Your task to perform on an android device: open app "HBO Max: Stream TV & Movies" (install if not already installed), go to login, and select forgot password Image 0: 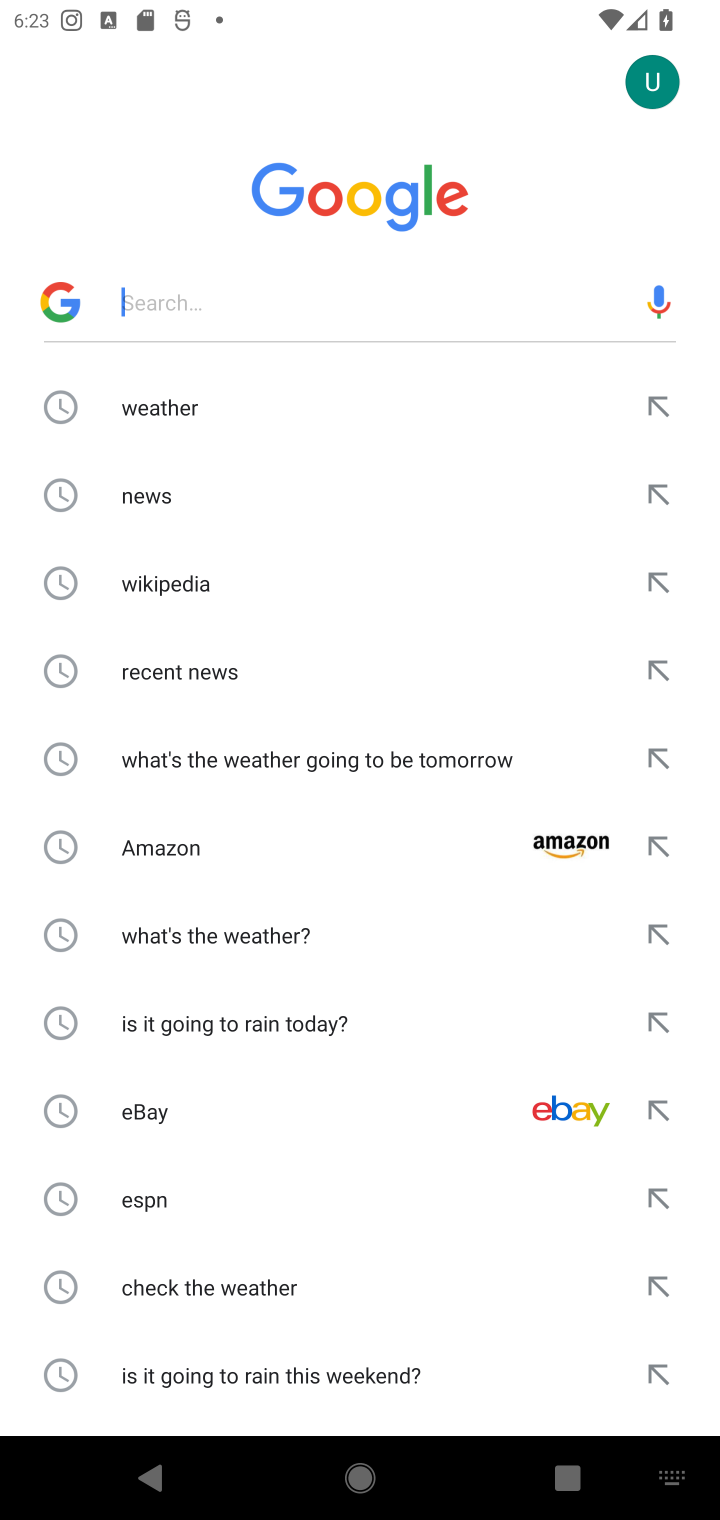
Step 0: press back button
Your task to perform on an android device: open app "HBO Max: Stream TV & Movies" (install if not already installed), go to login, and select forgot password Image 1: 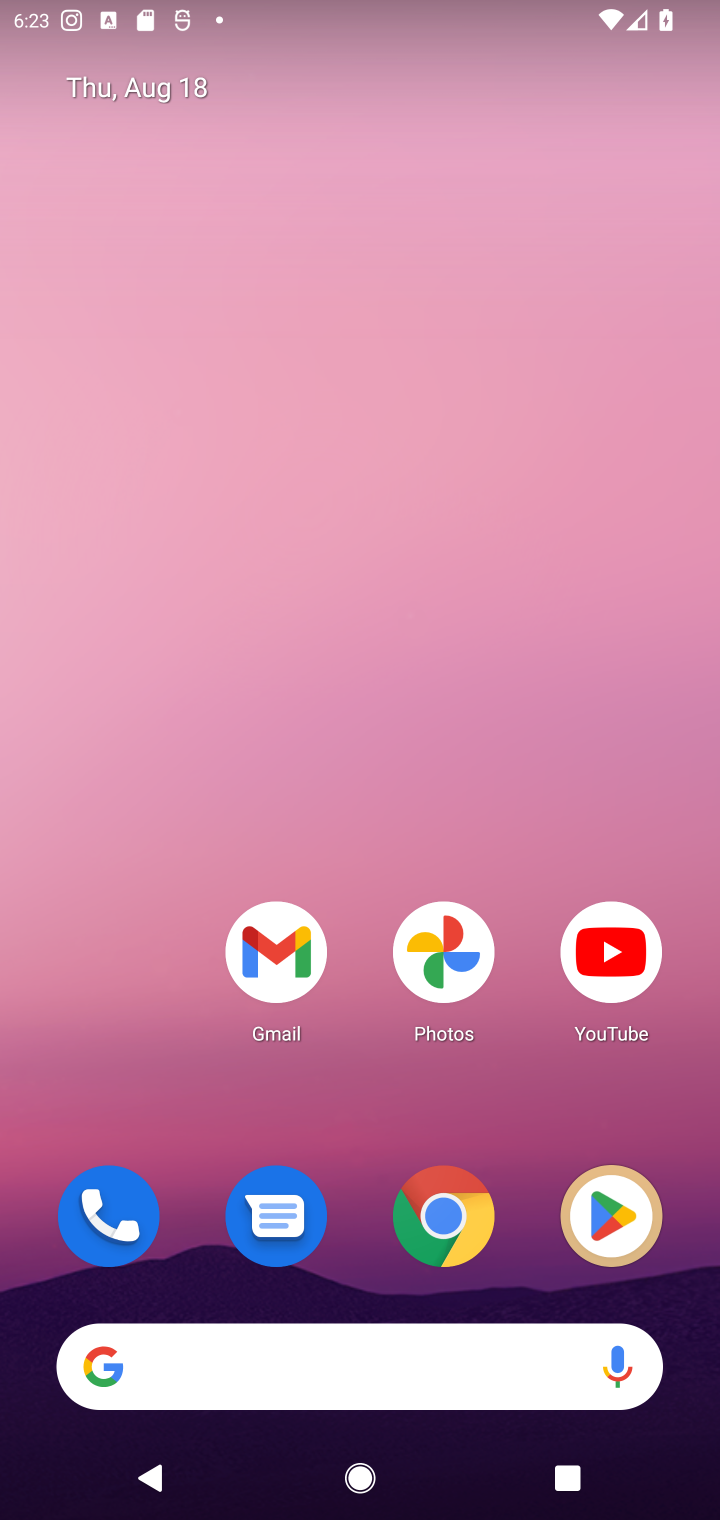
Step 1: click (587, 1180)
Your task to perform on an android device: open app "HBO Max: Stream TV & Movies" (install if not already installed), go to login, and select forgot password Image 2: 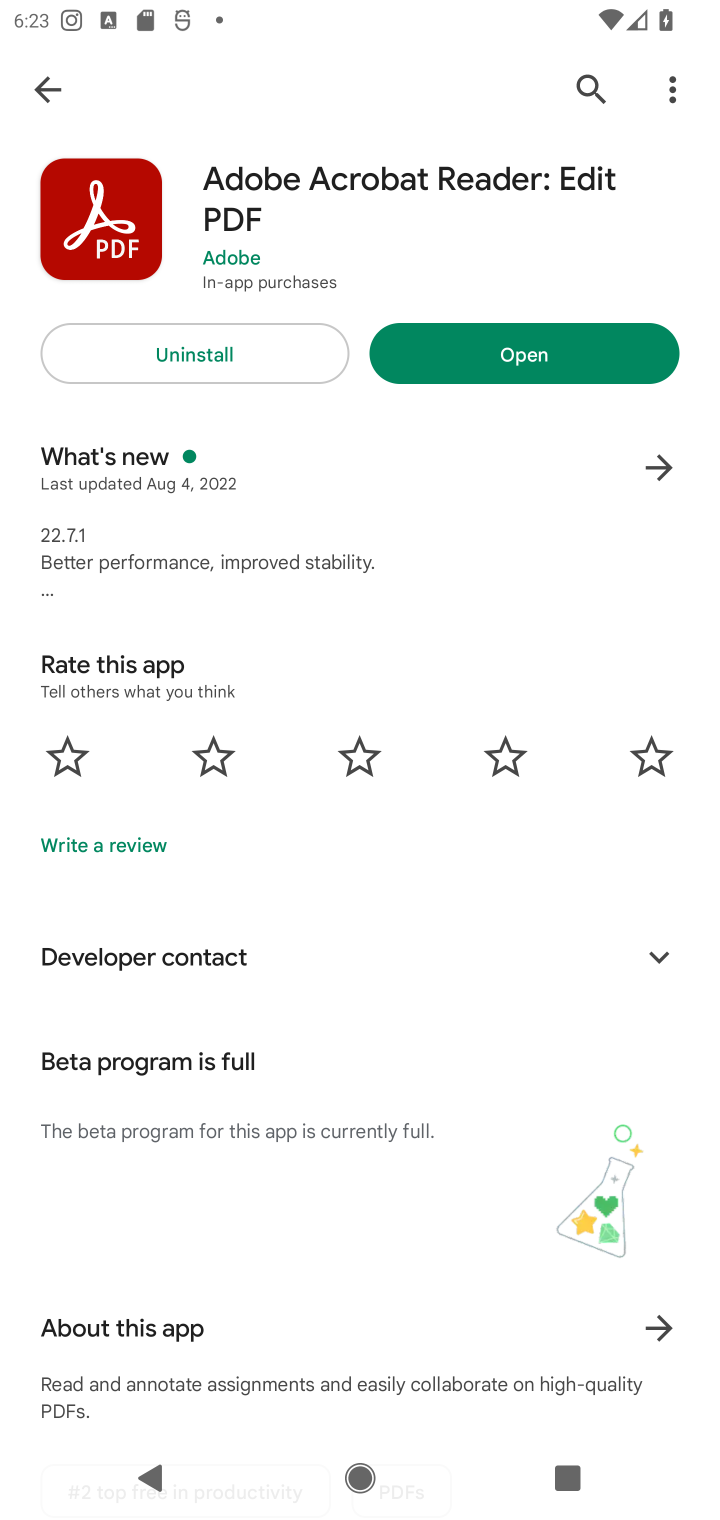
Step 2: click (585, 73)
Your task to perform on an android device: open app "HBO Max: Stream TV & Movies" (install if not already installed), go to login, and select forgot password Image 3: 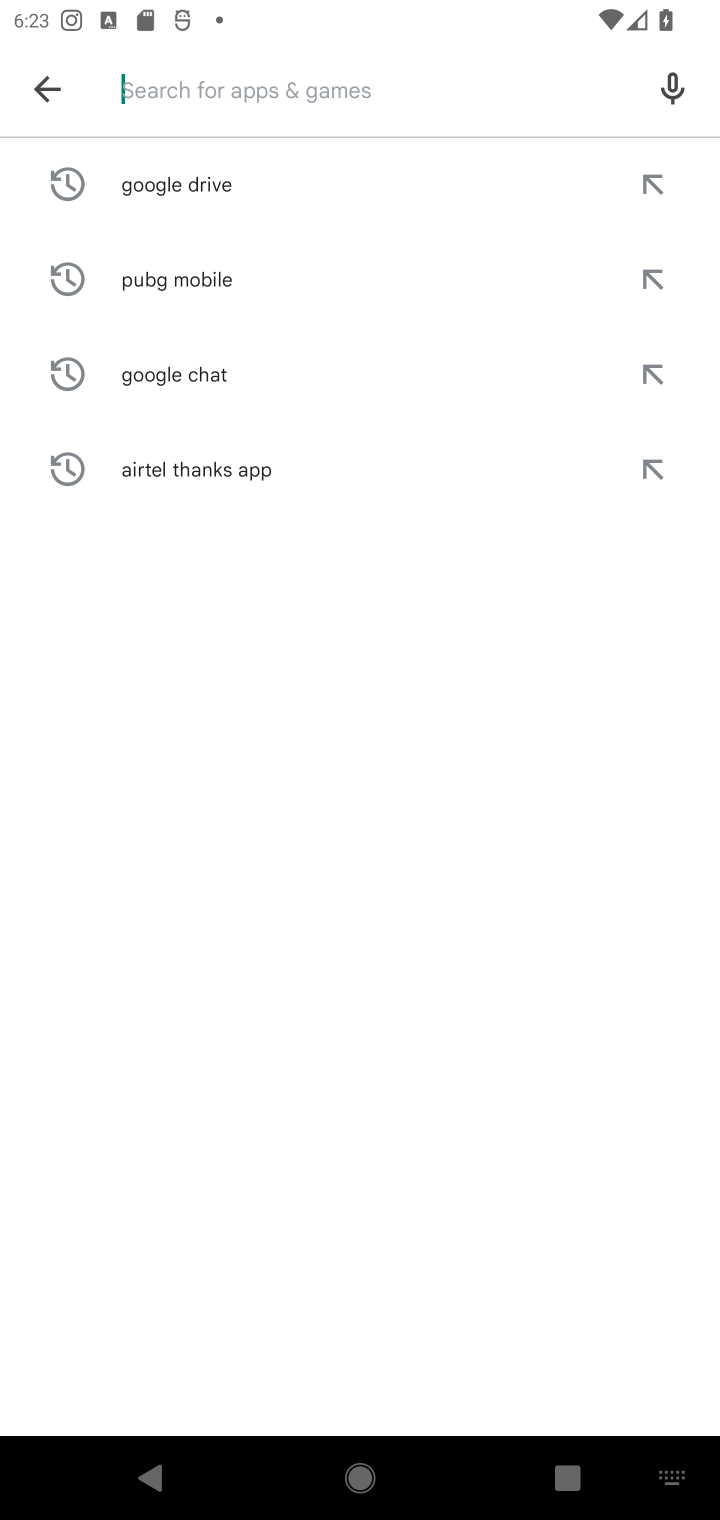
Step 3: type "HBO Max: Stream TV & Movies"
Your task to perform on an android device: open app "HBO Max: Stream TV & Movies" (install if not already installed), go to login, and select forgot password Image 4: 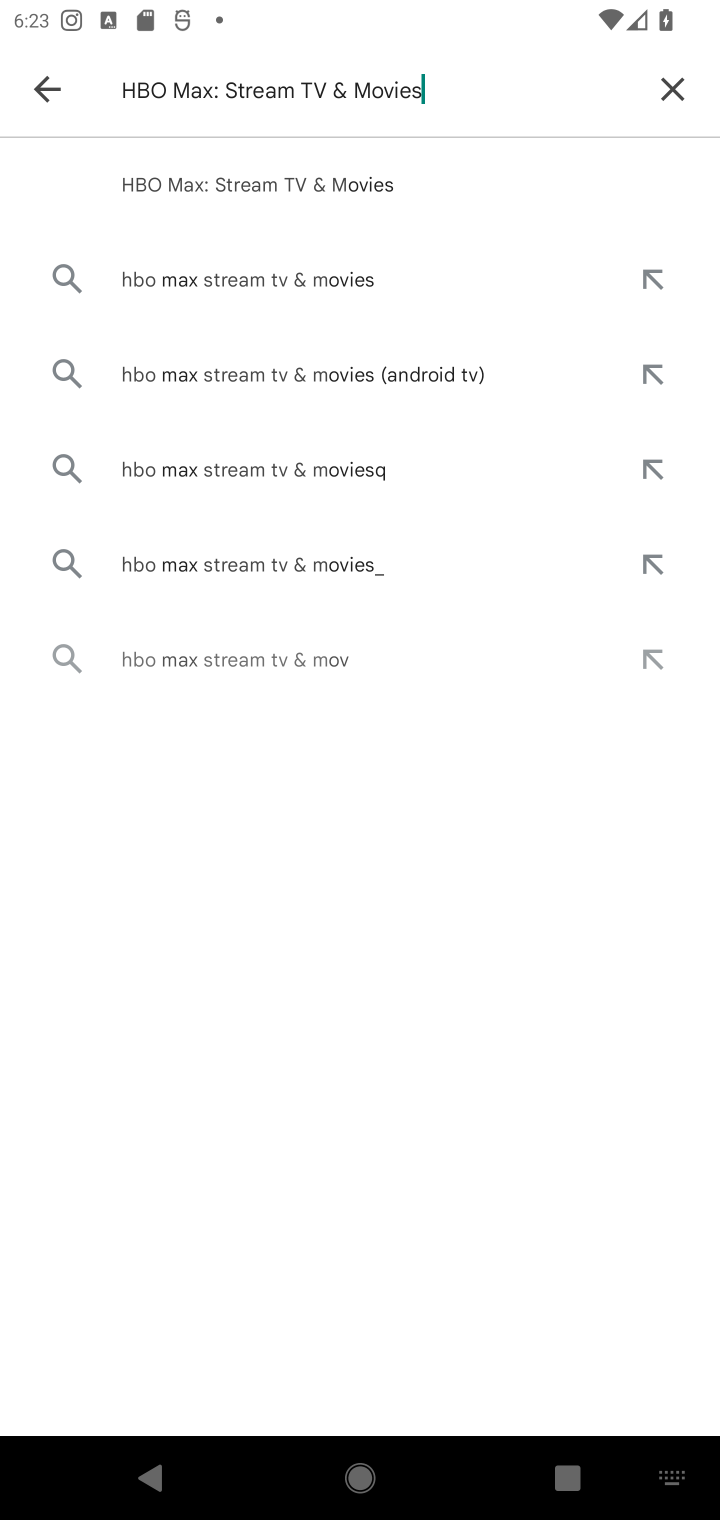
Step 4: type ""
Your task to perform on an android device: open app "HBO Max: Stream TV & Movies" (install if not already installed), go to login, and select forgot password Image 5: 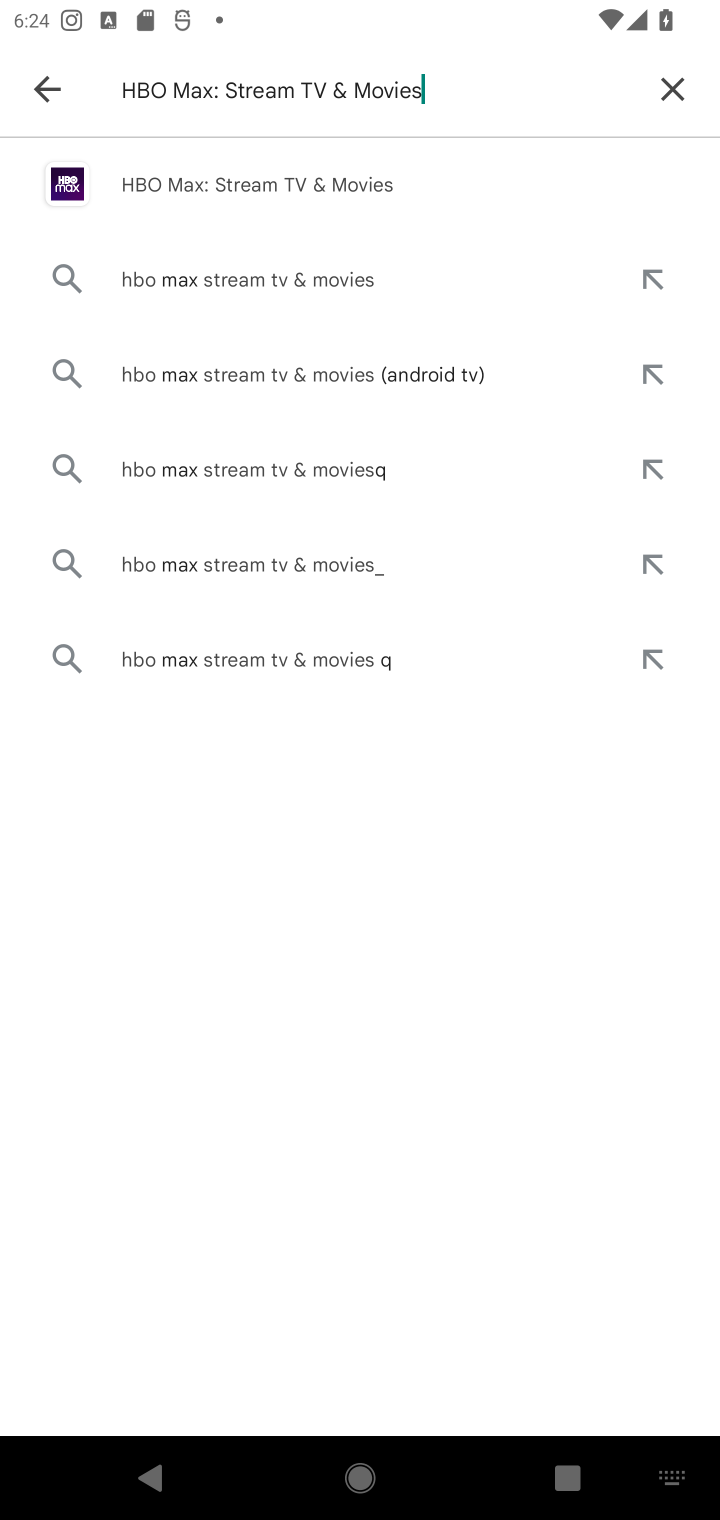
Step 5: click (398, 172)
Your task to perform on an android device: open app "HBO Max: Stream TV & Movies" (install if not already installed), go to login, and select forgot password Image 6: 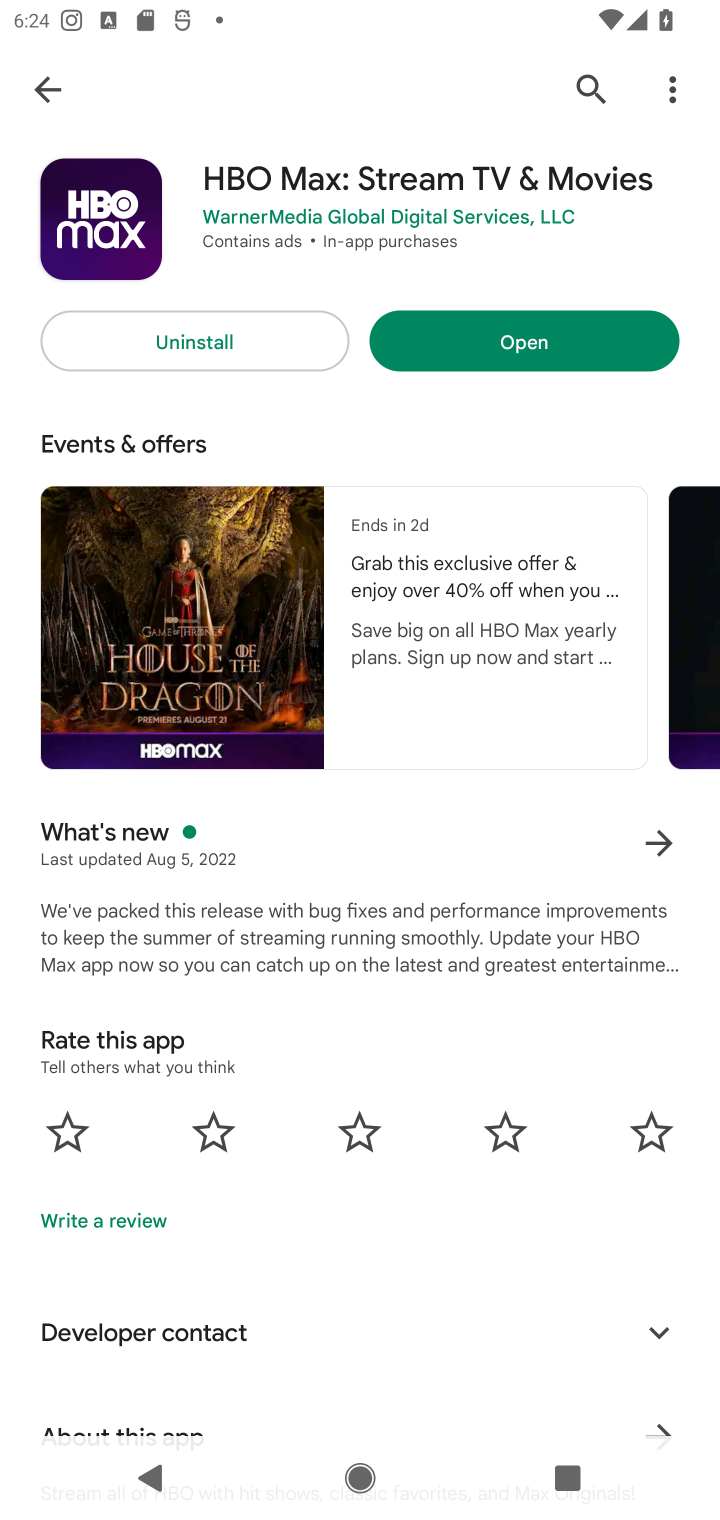
Step 6: click (482, 348)
Your task to perform on an android device: open app "HBO Max: Stream TV & Movies" (install if not already installed), go to login, and select forgot password Image 7: 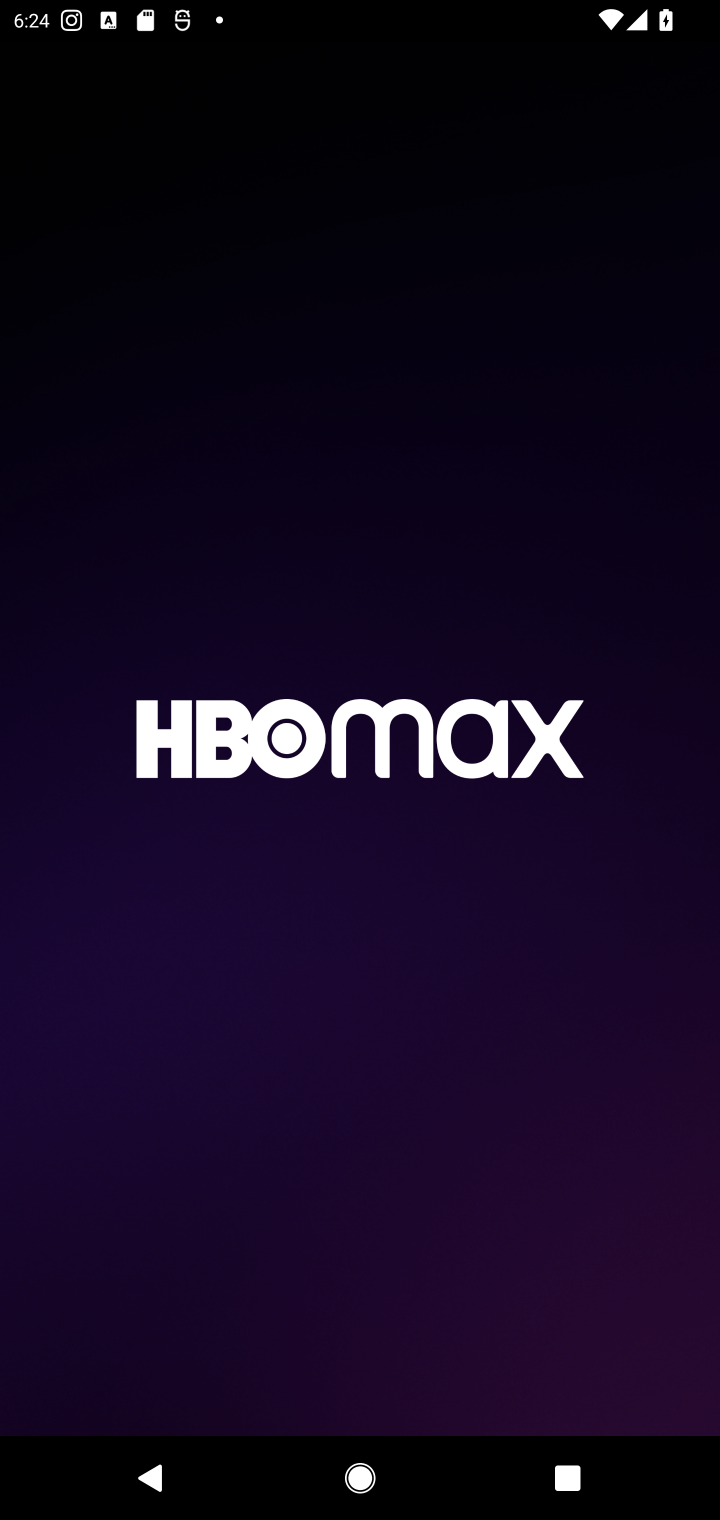
Step 7: task complete